Your task to perform on an android device: Open the web browser Image 0: 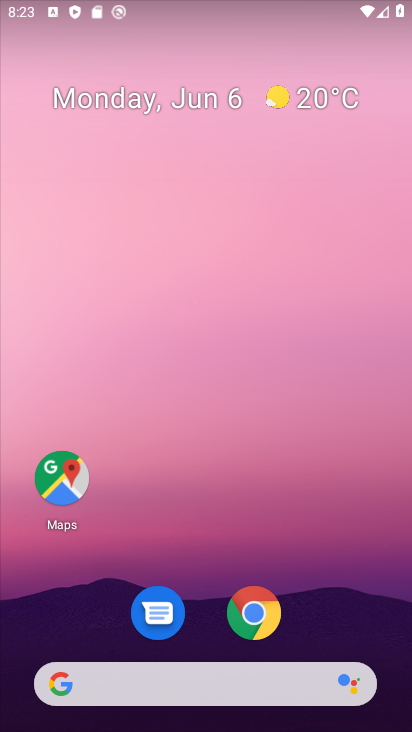
Step 0: click (264, 606)
Your task to perform on an android device: Open the web browser Image 1: 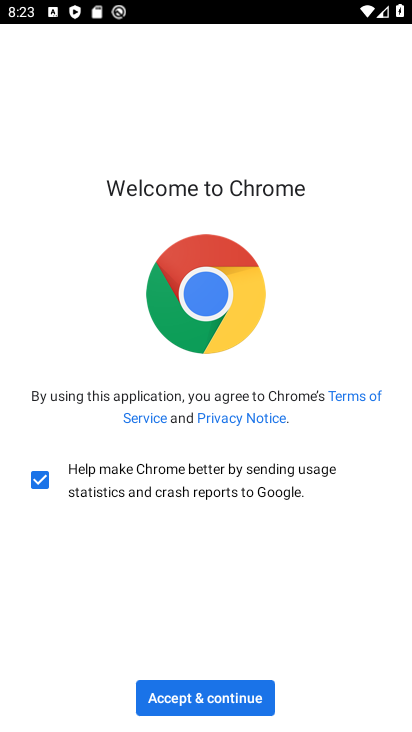
Step 1: click (178, 707)
Your task to perform on an android device: Open the web browser Image 2: 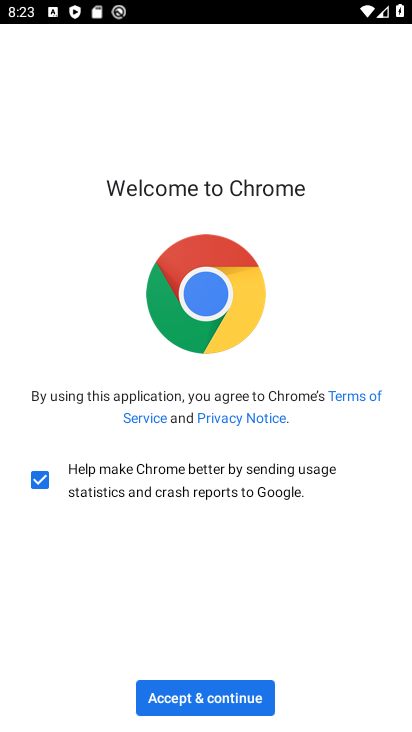
Step 2: click (176, 701)
Your task to perform on an android device: Open the web browser Image 3: 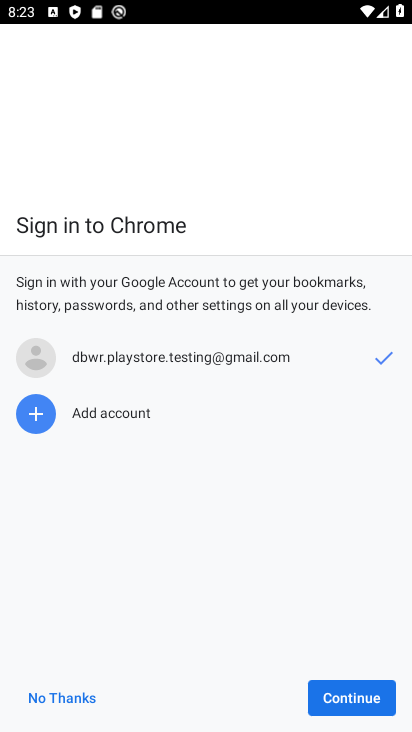
Step 3: click (339, 685)
Your task to perform on an android device: Open the web browser Image 4: 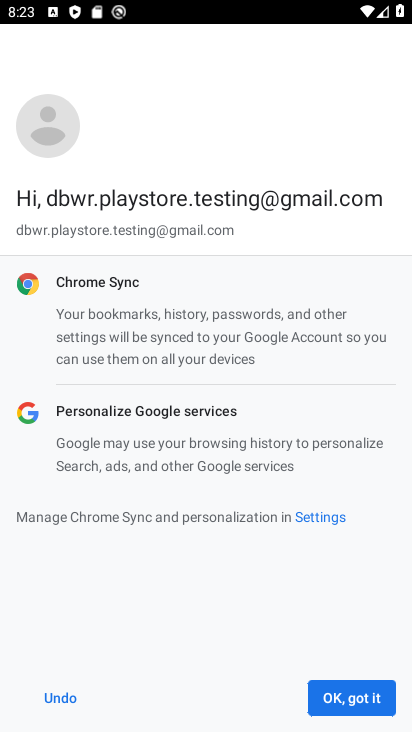
Step 4: click (337, 696)
Your task to perform on an android device: Open the web browser Image 5: 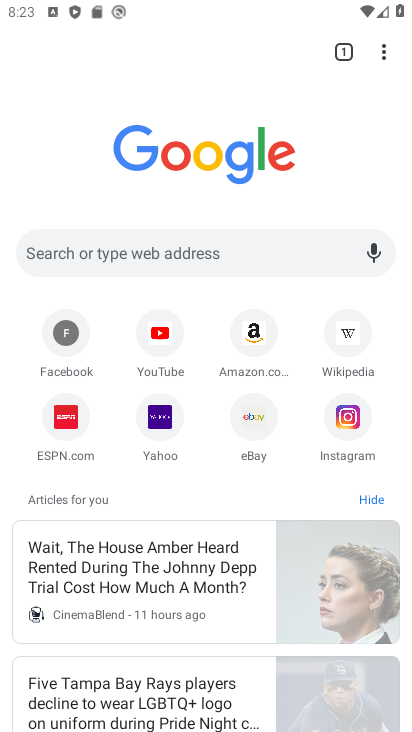
Step 5: task complete